Your task to perform on an android device: What's the weather today? Image 0: 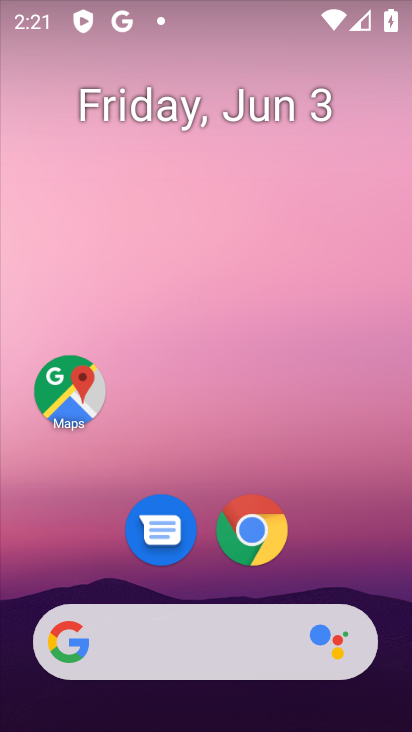
Step 0: click (150, 640)
Your task to perform on an android device: What's the weather today? Image 1: 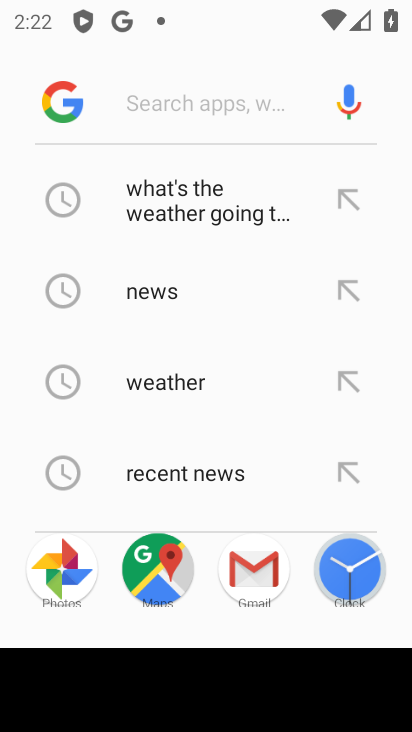
Step 1: click (201, 387)
Your task to perform on an android device: What's the weather today? Image 2: 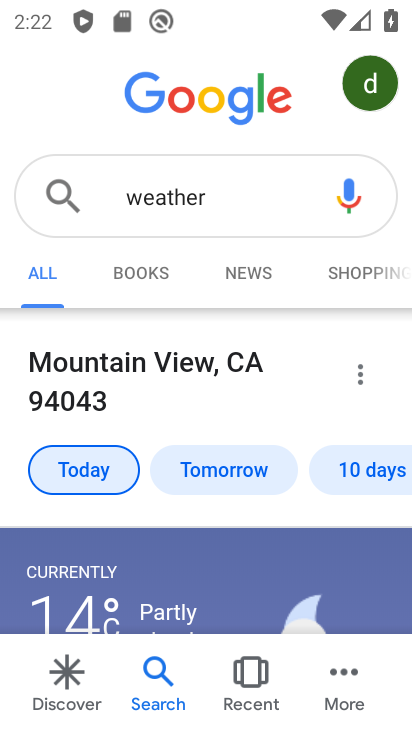
Step 2: task complete